Your task to perform on an android device: toggle pop-ups in chrome Image 0: 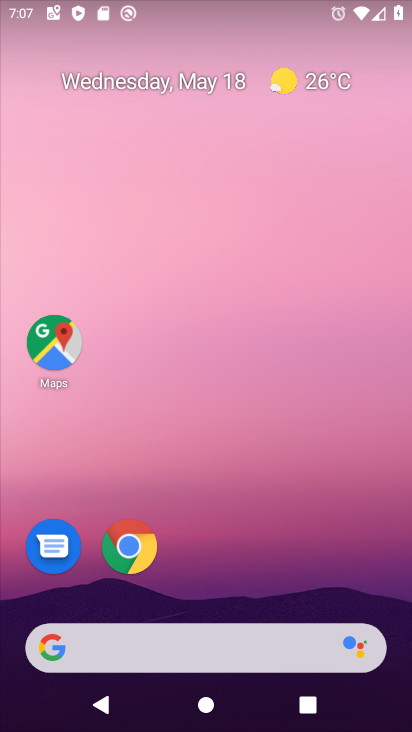
Step 0: drag from (389, 604) to (306, 52)
Your task to perform on an android device: toggle pop-ups in chrome Image 1: 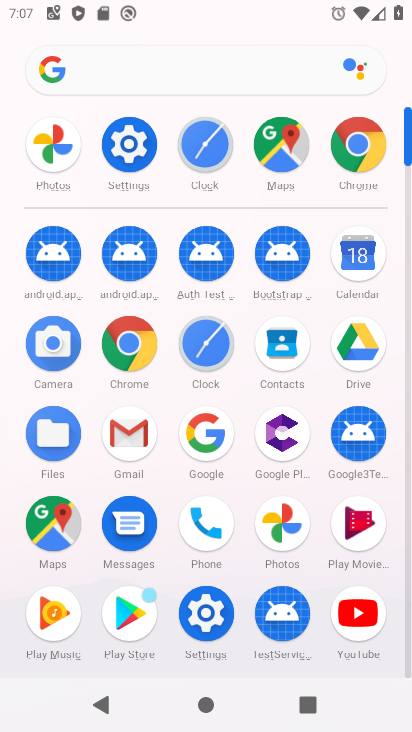
Step 1: click (363, 124)
Your task to perform on an android device: toggle pop-ups in chrome Image 2: 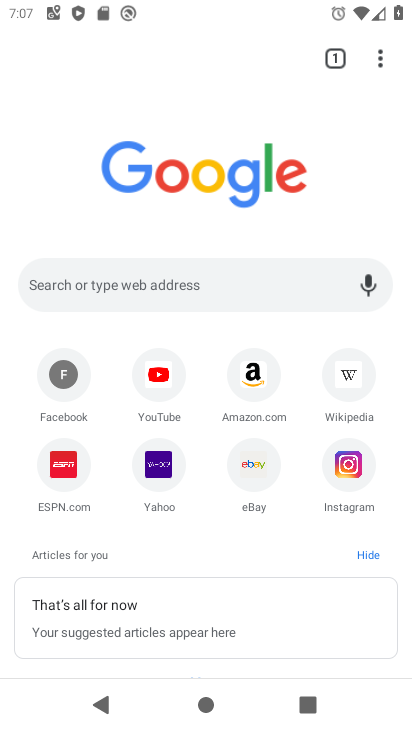
Step 2: click (374, 60)
Your task to perform on an android device: toggle pop-ups in chrome Image 3: 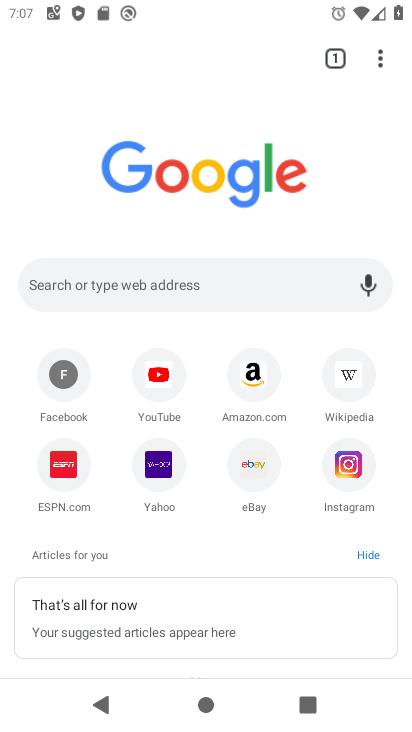
Step 3: click (383, 50)
Your task to perform on an android device: toggle pop-ups in chrome Image 4: 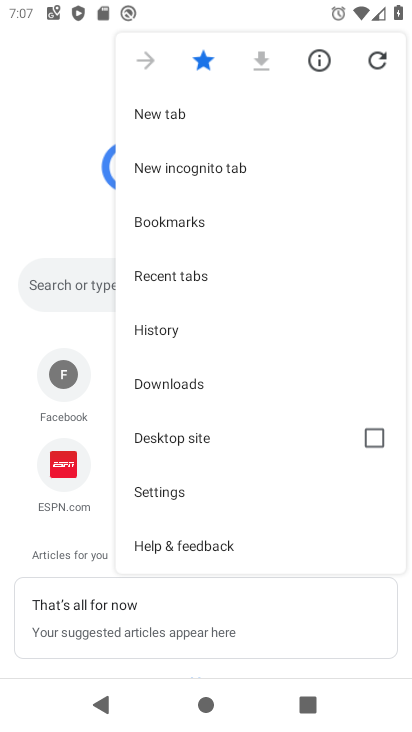
Step 4: click (217, 498)
Your task to perform on an android device: toggle pop-ups in chrome Image 5: 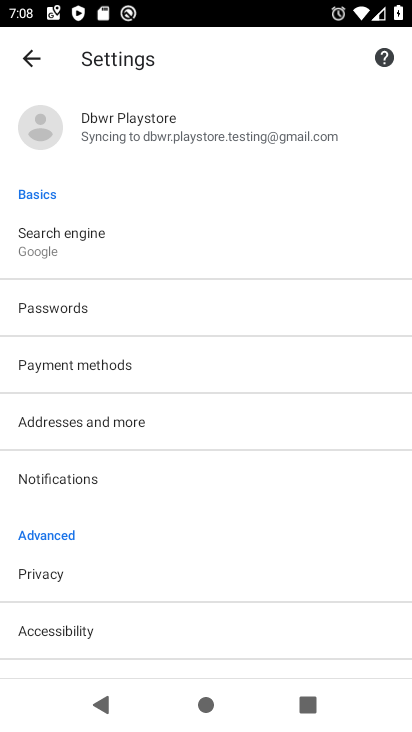
Step 5: drag from (83, 631) to (182, 231)
Your task to perform on an android device: toggle pop-ups in chrome Image 6: 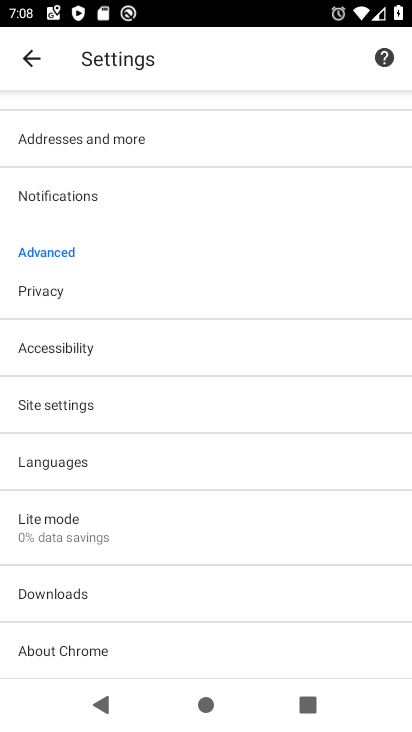
Step 6: click (101, 420)
Your task to perform on an android device: toggle pop-ups in chrome Image 7: 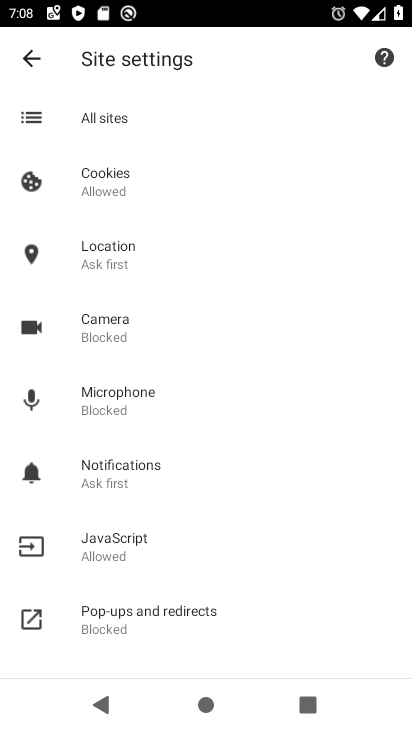
Step 7: click (162, 613)
Your task to perform on an android device: toggle pop-ups in chrome Image 8: 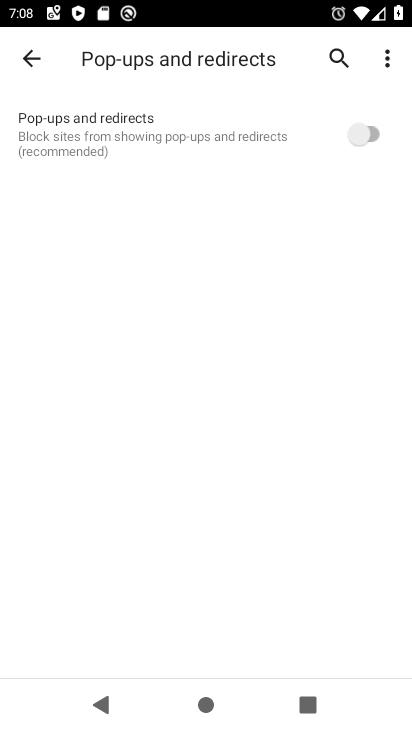
Step 8: click (338, 134)
Your task to perform on an android device: toggle pop-ups in chrome Image 9: 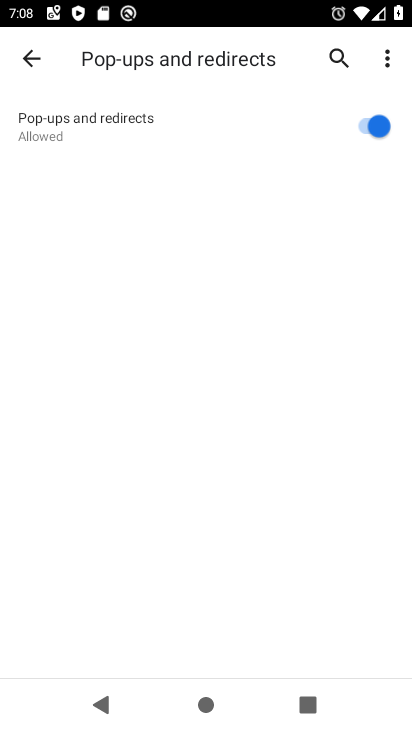
Step 9: task complete